Your task to perform on an android device: Open settings Image 0: 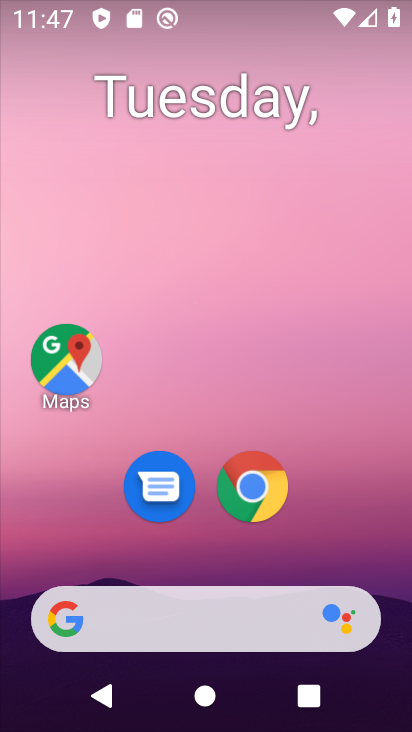
Step 0: drag from (105, 573) to (216, 69)
Your task to perform on an android device: Open settings Image 1: 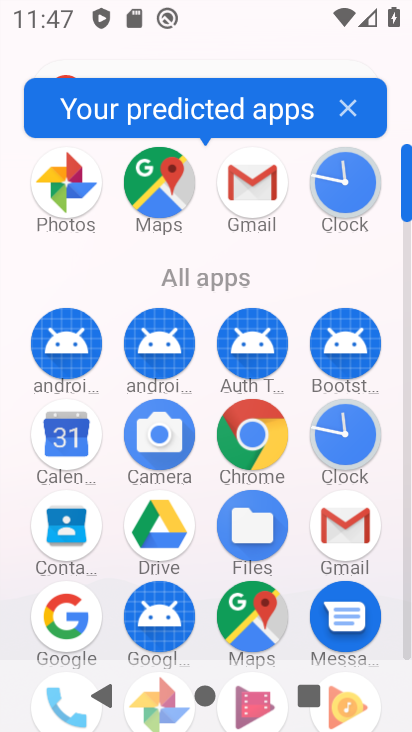
Step 1: drag from (186, 619) to (259, 330)
Your task to perform on an android device: Open settings Image 2: 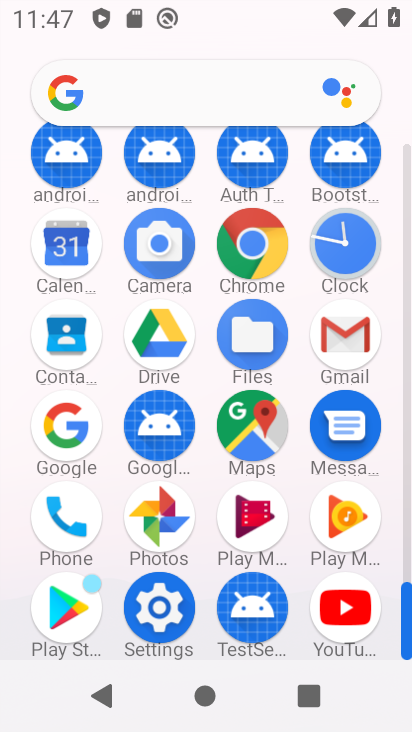
Step 2: click (164, 611)
Your task to perform on an android device: Open settings Image 3: 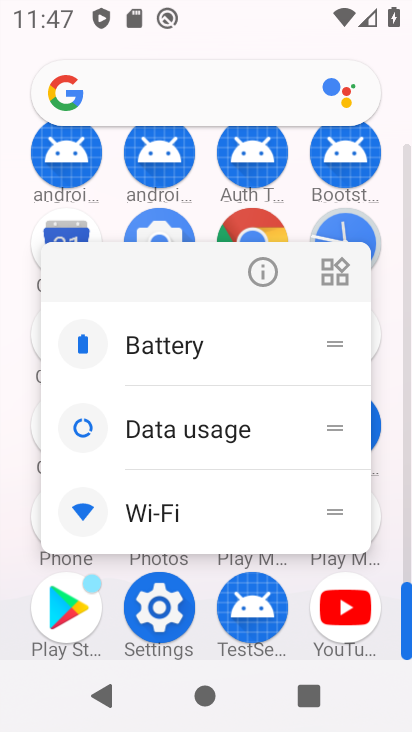
Step 3: click (164, 609)
Your task to perform on an android device: Open settings Image 4: 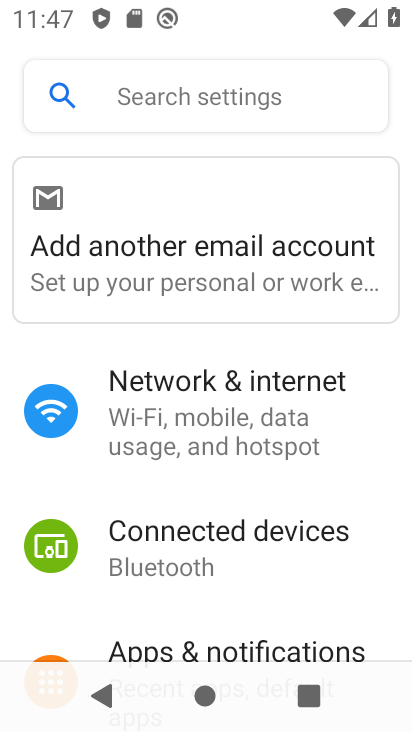
Step 4: task complete